Your task to perform on an android device: Open Youtube and go to the subscriptions tab Image 0: 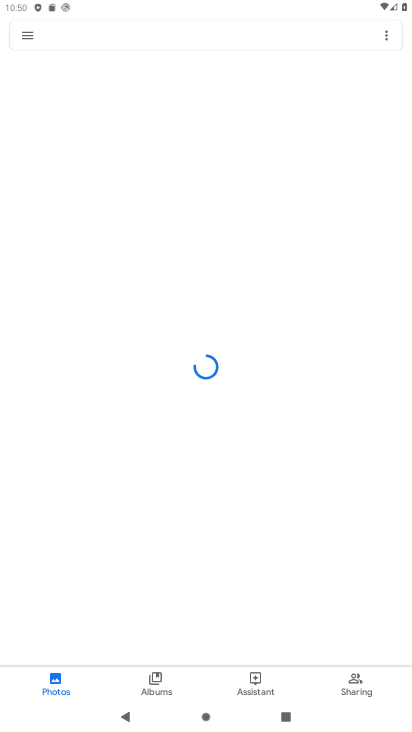
Step 0: press home button
Your task to perform on an android device: Open Youtube and go to the subscriptions tab Image 1: 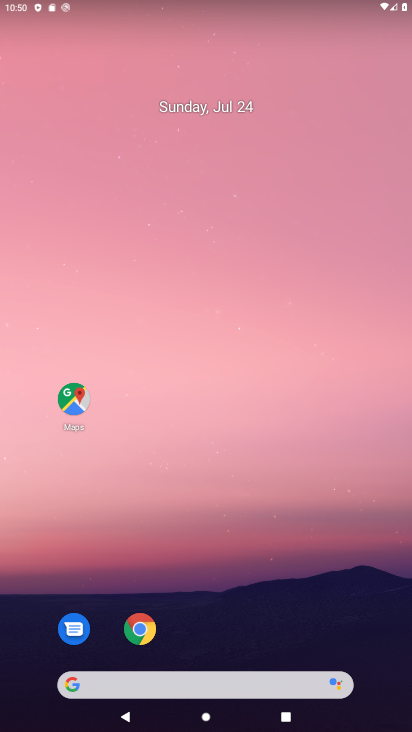
Step 1: drag from (310, 602) to (216, 93)
Your task to perform on an android device: Open Youtube and go to the subscriptions tab Image 2: 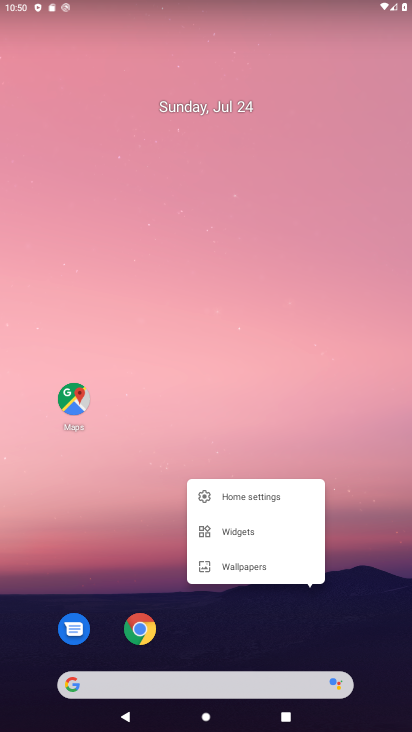
Step 2: click (307, 390)
Your task to perform on an android device: Open Youtube and go to the subscriptions tab Image 3: 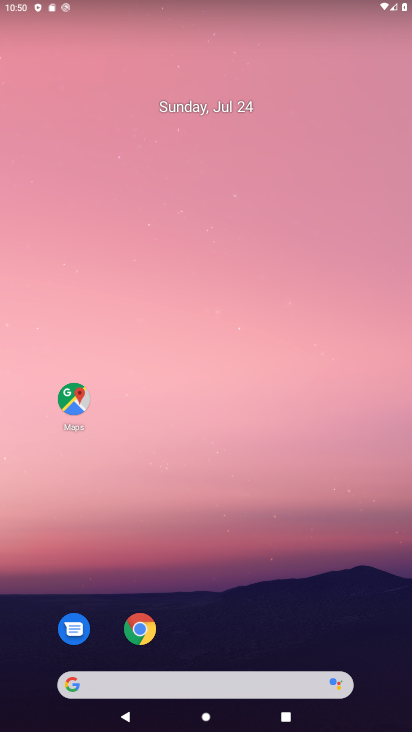
Step 3: drag from (248, 653) to (203, 25)
Your task to perform on an android device: Open Youtube and go to the subscriptions tab Image 4: 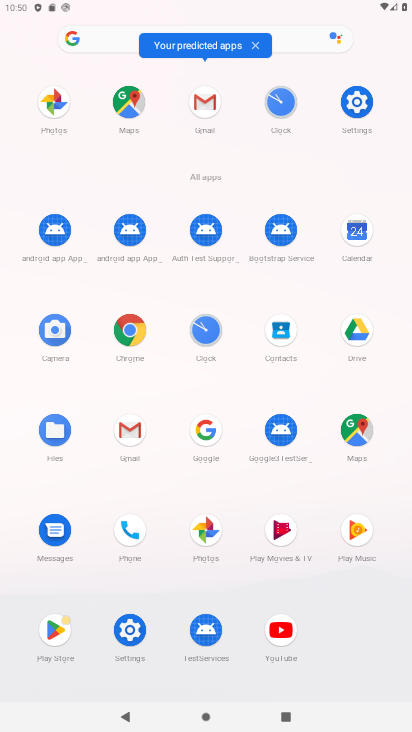
Step 4: click (280, 634)
Your task to perform on an android device: Open Youtube and go to the subscriptions tab Image 5: 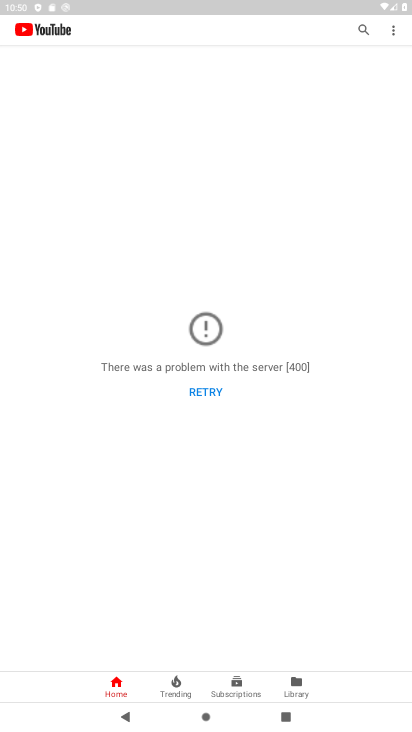
Step 5: click (233, 689)
Your task to perform on an android device: Open Youtube and go to the subscriptions tab Image 6: 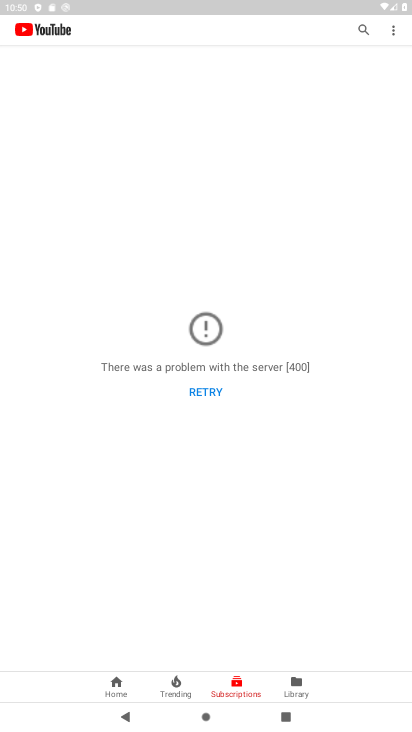
Step 6: task complete